Your task to perform on an android device: toggle wifi Image 0: 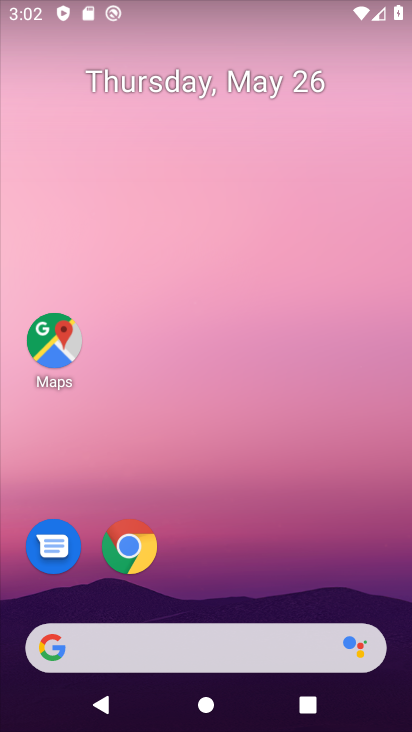
Step 0: drag from (115, 15) to (149, 468)
Your task to perform on an android device: toggle wifi Image 1: 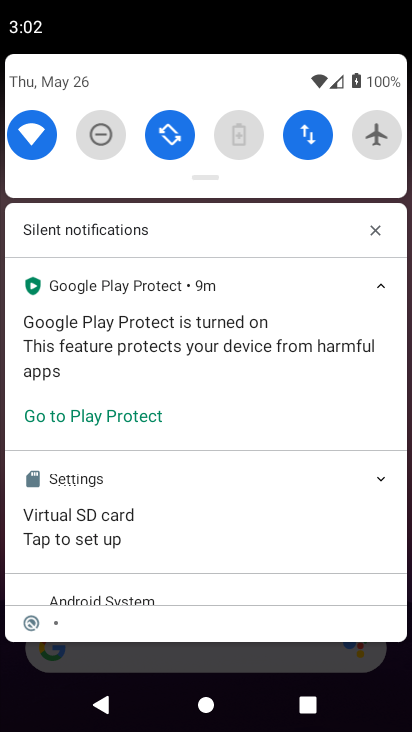
Step 1: click (37, 125)
Your task to perform on an android device: toggle wifi Image 2: 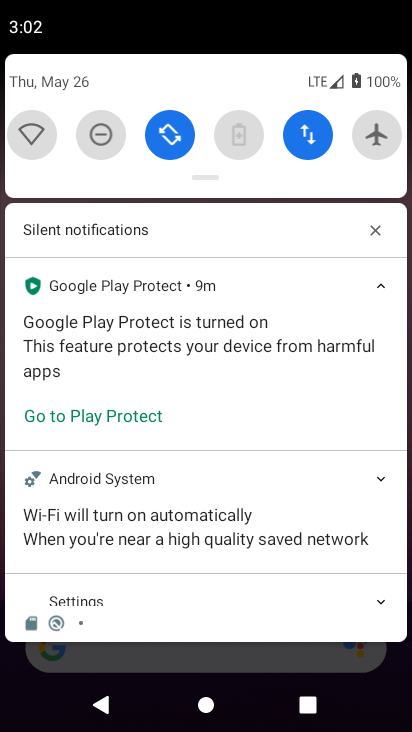
Step 2: task complete